Your task to perform on an android device: check battery use Image 0: 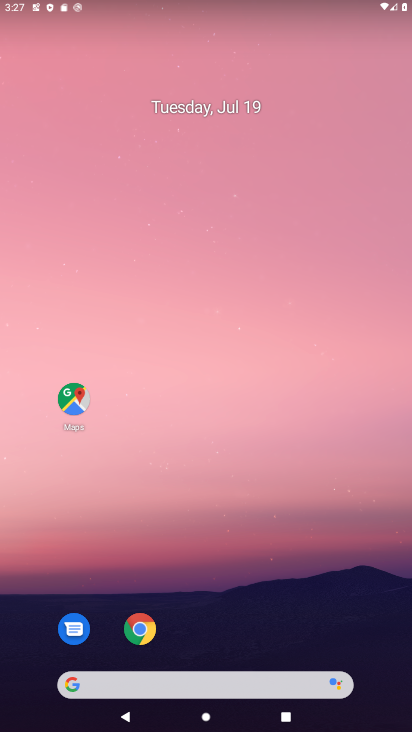
Step 0: drag from (203, 668) to (209, 142)
Your task to perform on an android device: check battery use Image 1: 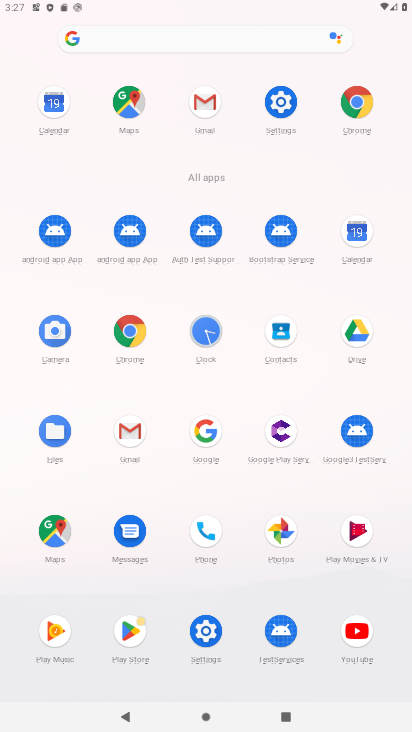
Step 1: click (285, 97)
Your task to perform on an android device: check battery use Image 2: 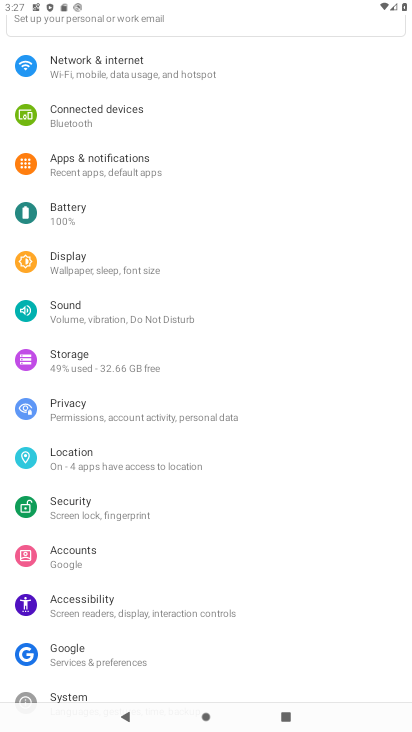
Step 2: click (72, 209)
Your task to perform on an android device: check battery use Image 3: 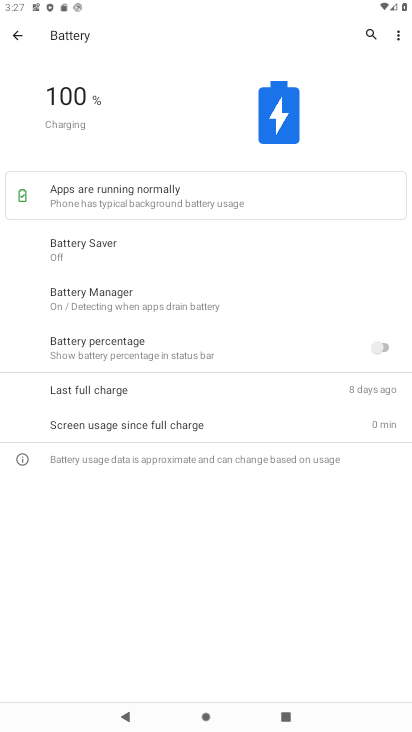
Step 3: click (396, 34)
Your task to perform on an android device: check battery use Image 4: 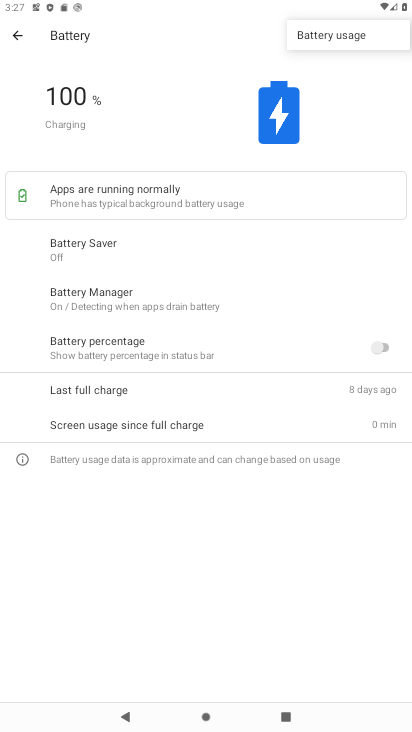
Step 4: click (303, 33)
Your task to perform on an android device: check battery use Image 5: 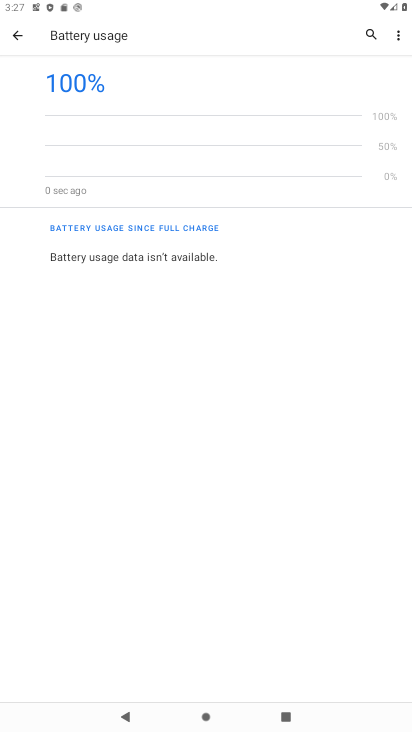
Step 5: task complete